Your task to perform on an android device: add a contact Image 0: 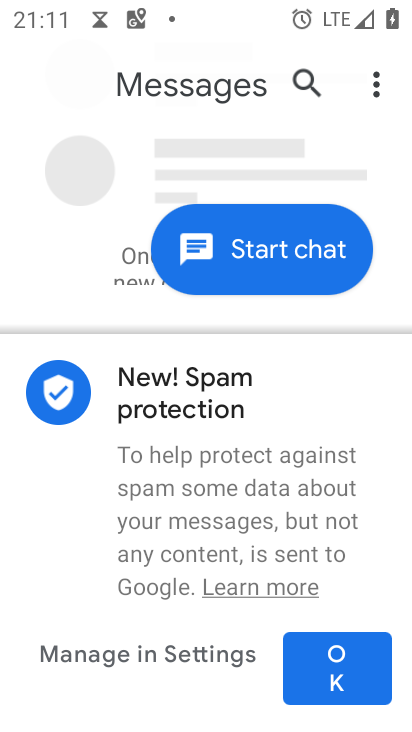
Step 0: press home button
Your task to perform on an android device: add a contact Image 1: 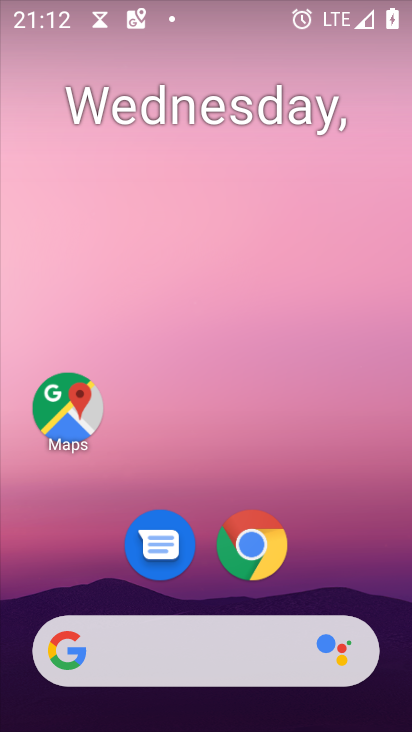
Step 1: drag from (208, 656) to (335, 168)
Your task to perform on an android device: add a contact Image 2: 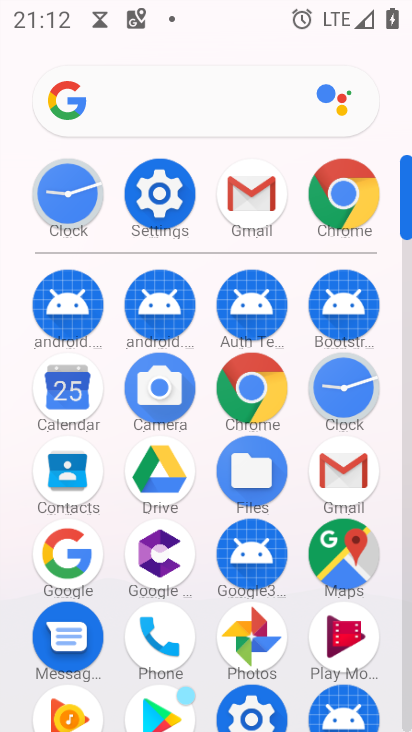
Step 2: click (72, 482)
Your task to perform on an android device: add a contact Image 3: 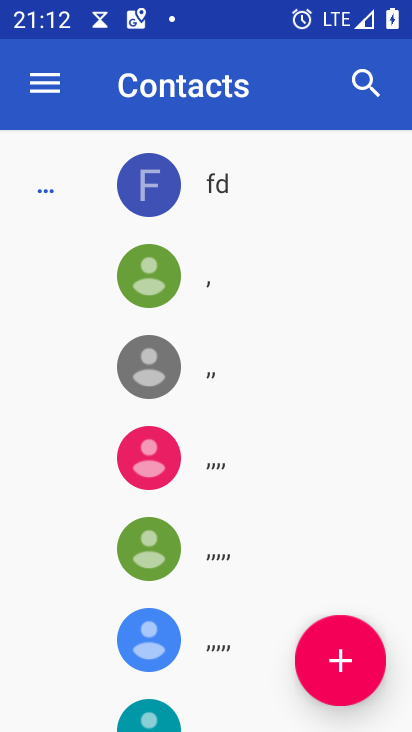
Step 3: click (345, 674)
Your task to perform on an android device: add a contact Image 4: 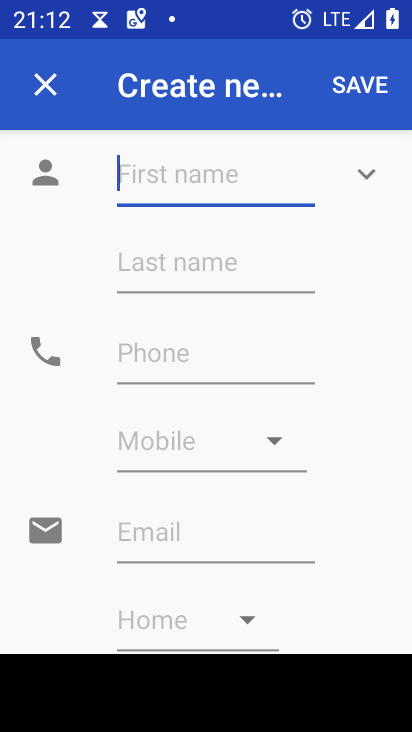
Step 4: type "dreffee"
Your task to perform on an android device: add a contact Image 5: 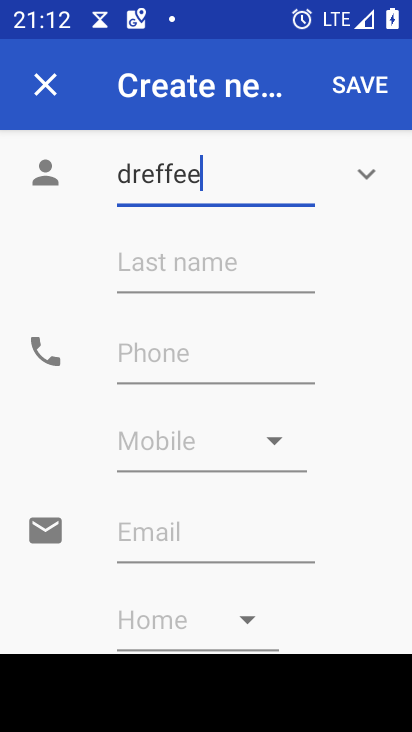
Step 5: click (147, 350)
Your task to perform on an android device: add a contact Image 6: 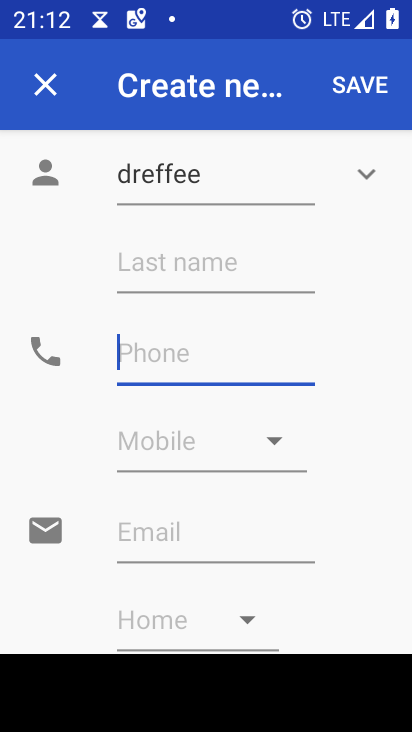
Step 6: type "76877"
Your task to perform on an android device: add a contact Image 7: 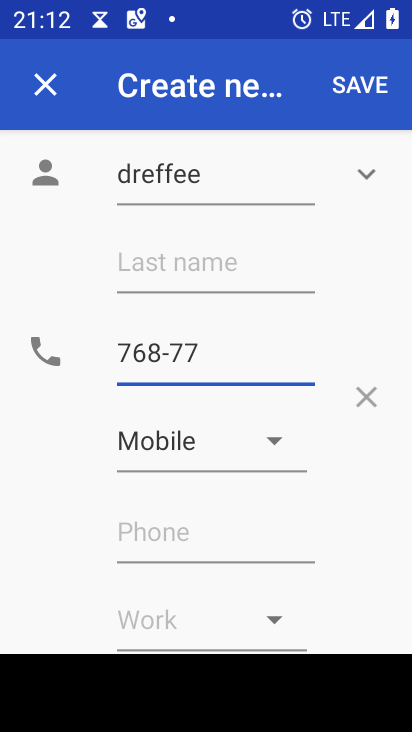
Step 7: click (372, 93)
Your task to perform on an android device: add a contact Image 8: 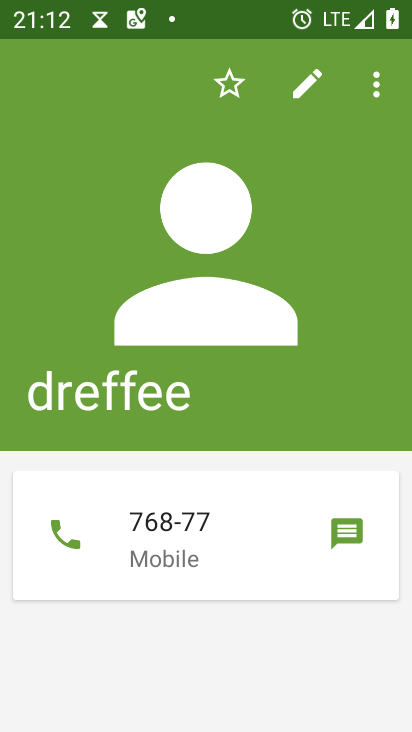
Step 8: task complete